Your task to perform on an android device: Open settings Image 0: 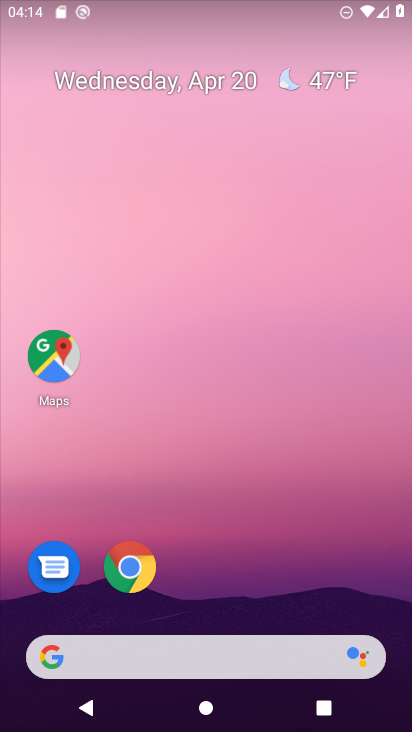
Step 0: drag from (227, 7) to (363, 623)
Your task to perform on an android device: Open settings Image 1: 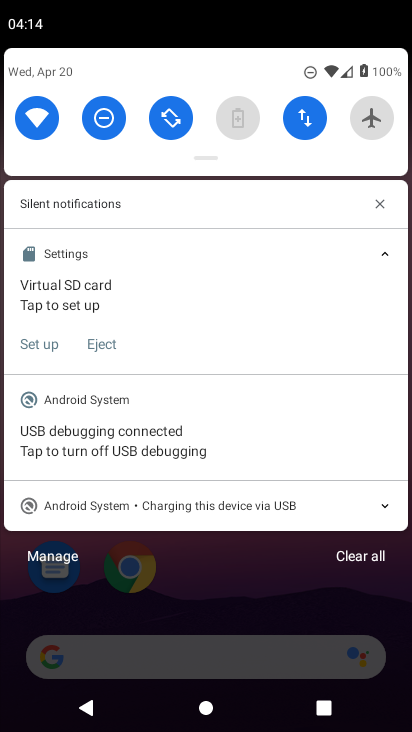
Step 1: drag from (247, 85) to (270, 731)
Your task to perform on an android device: Open settings Image 2: 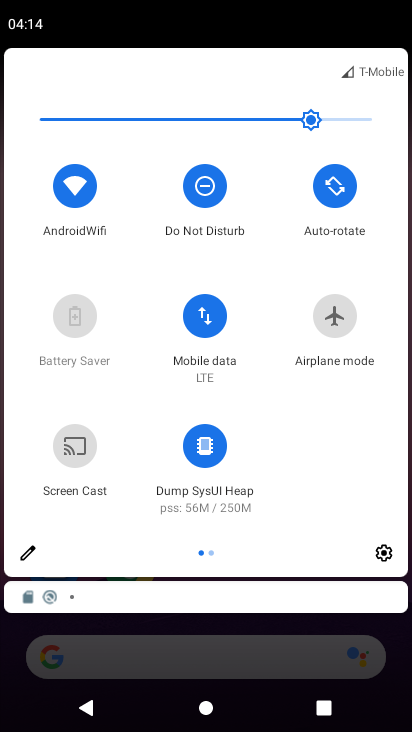
Step 2: click (381, 551)
Your task to perform on an android device: Open settings Image 3: 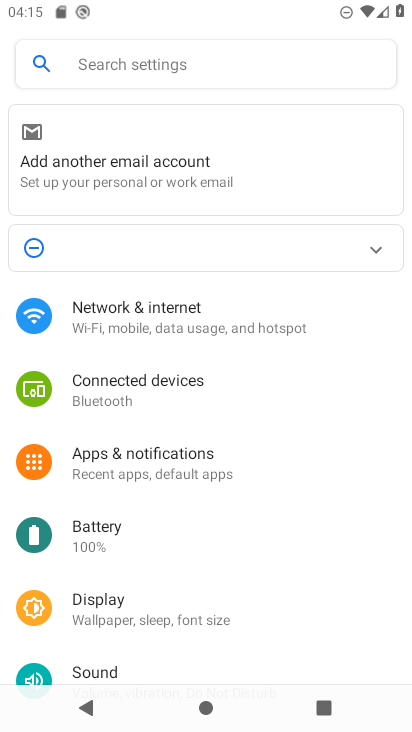
Step 3: task complete